Your task to perform on an android device: Check the weather Image 0: 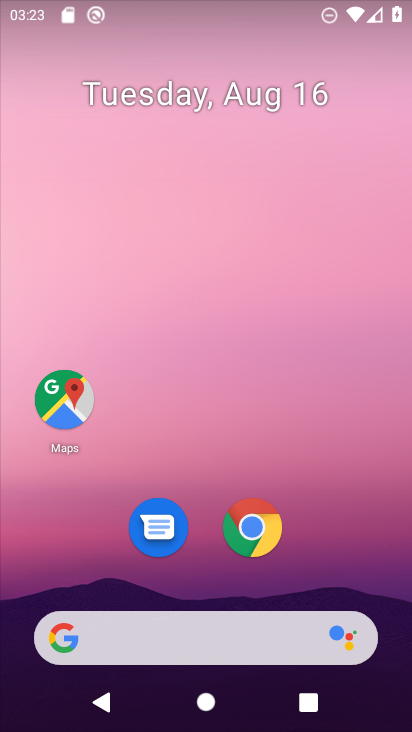
Step 0: press home button
Your task to perform on an android device: Check the weather Image 1: 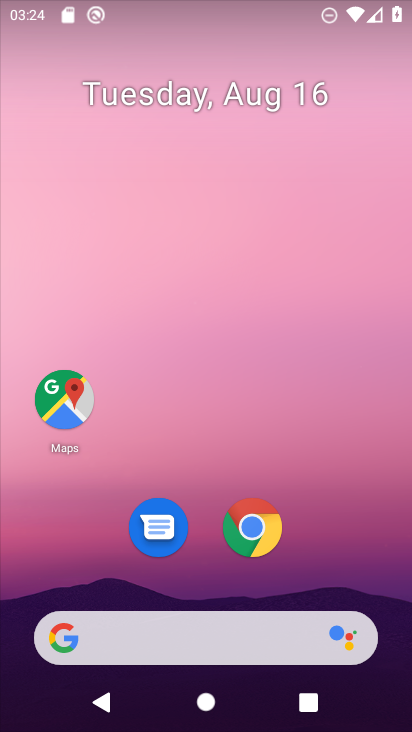
Step 1: click (183, 630)
Your task to perform on an android device: Check the weather Image 2: 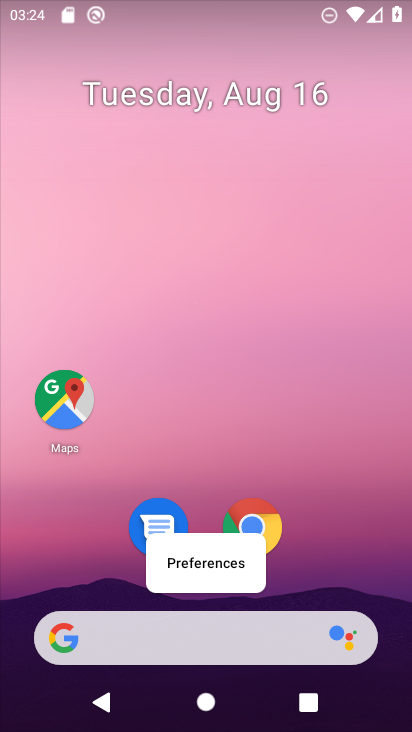
Step 2: click (122, 639)
Your task to perform on an android device: Check the weather Image 3: 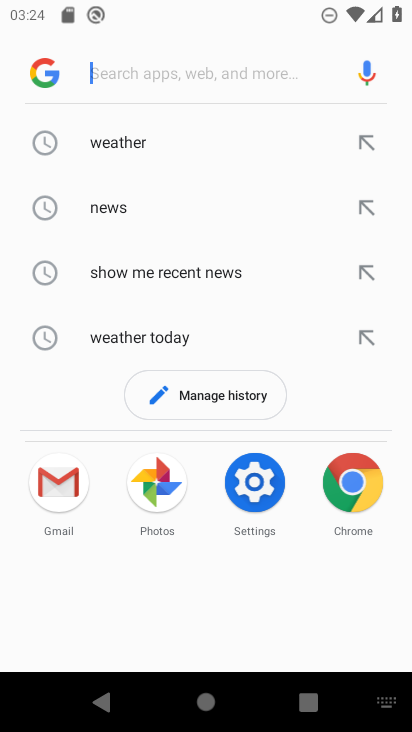
Step 3: click (136, 140)
Your task to perform on an android device: Check the weather Image 4: 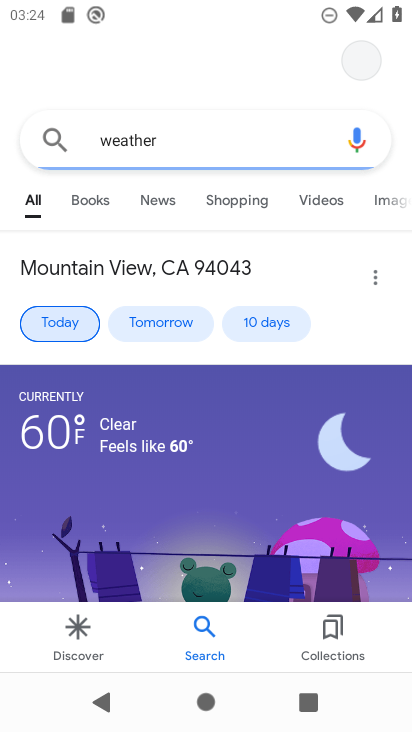
Step 4: task complete